Your task to perform on an android device: change the upload size in google photos Image 0: 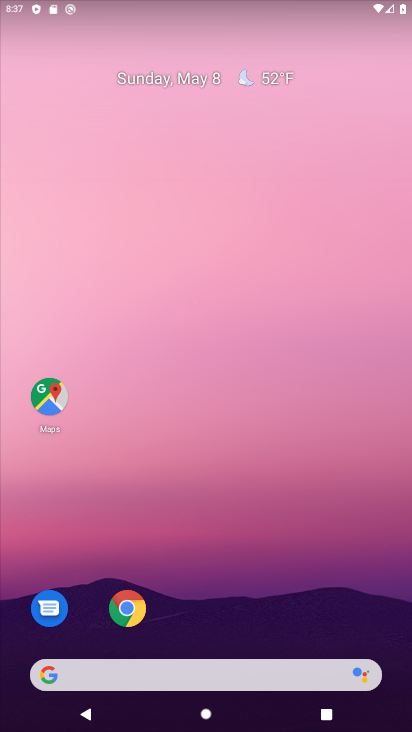
Step 0: drag from (217, 623) to (216, 6)
Your task to perform on an android device: change the upload size in google photos Image 1: 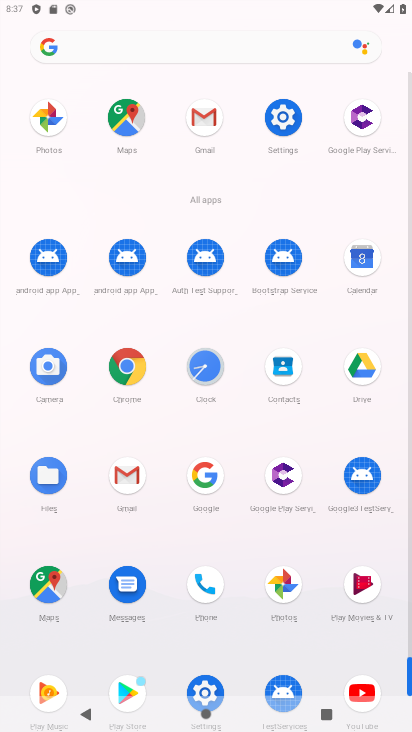
Step 1: click (284, 591)
Your task to perform on an android device: change the upload size in google photos Image 2: 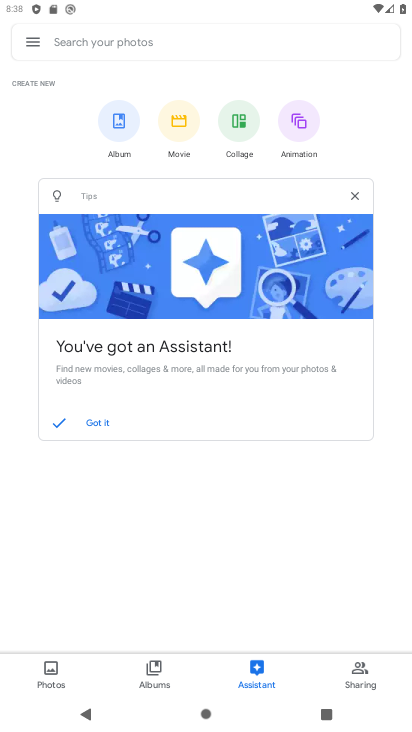
Step 2: click (22, 40)
Your task to perform on an android device: change the upload size in google photos Image 3: 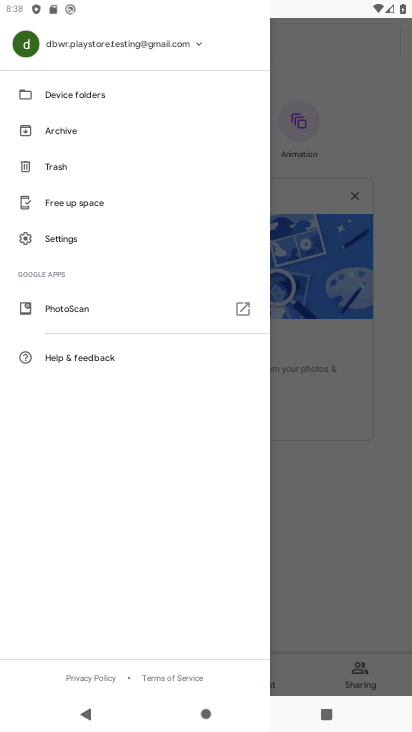
Step 3: click (53, 234)
Your task to perform on an android device: change the upload size in google photos Image 4: 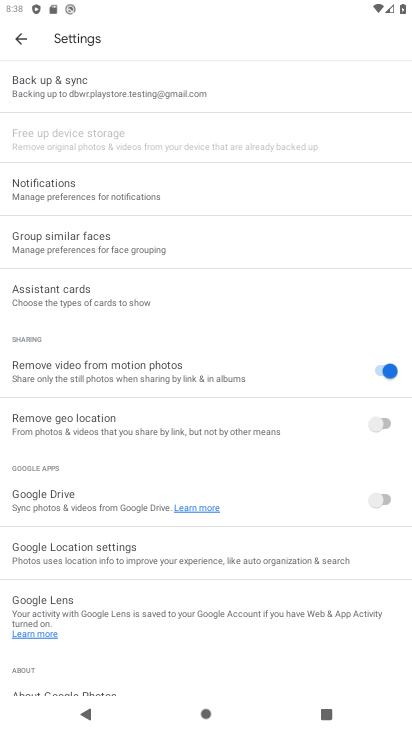
Step 4: click (66, 92)
Your task to perform on an android device: change the upload size in google photos Image 5: 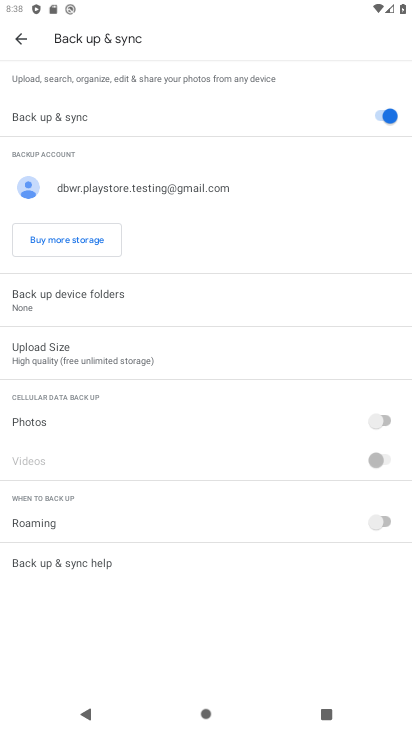
Step 5: click (116, 352)
Your task to perform on an android device: change the upload size in google photos Image 6: 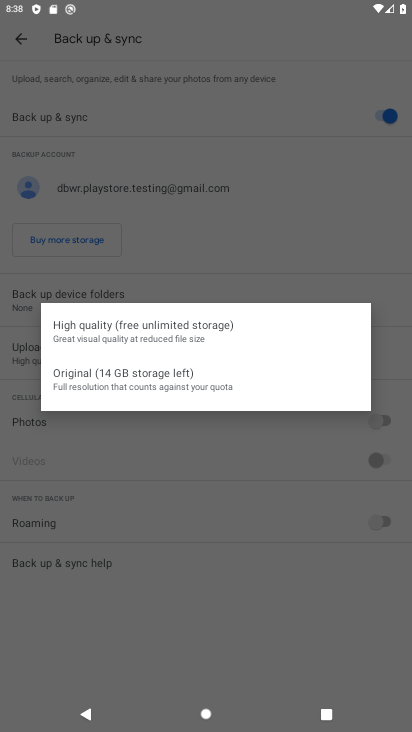
Step 6: click (115, 379)
Your task to perform on an android device: change the upload size in google photos Image 7: 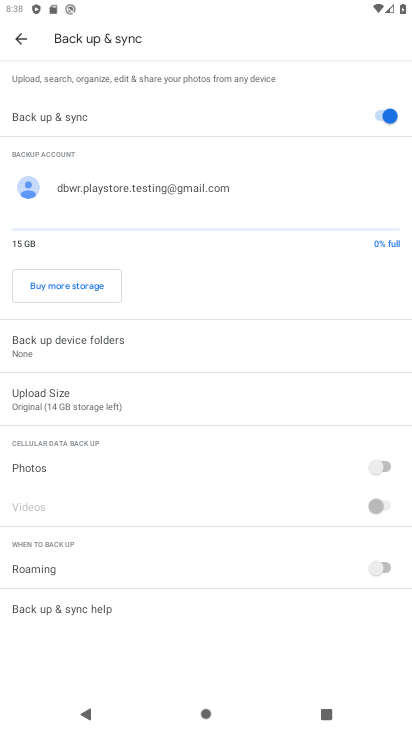
Step 7: task complete